Your task to perform on an android device: turn off notifications settings in the gmail app Image 0: 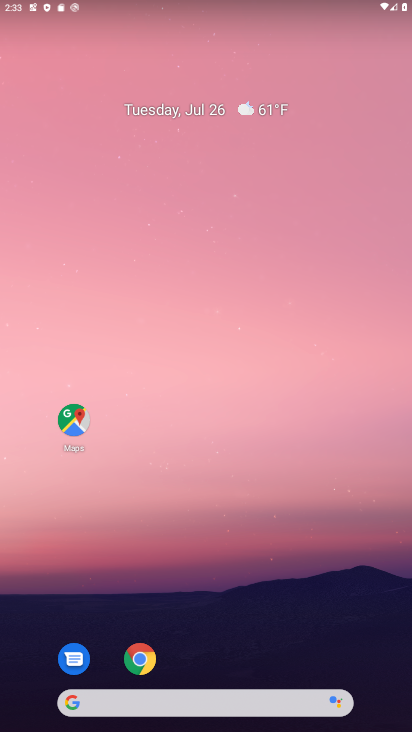
Step 0: drag from (182, 663) to (176, 237)
Your task to perform on an android device: turn off notifications settings in the gmail app Image 1: 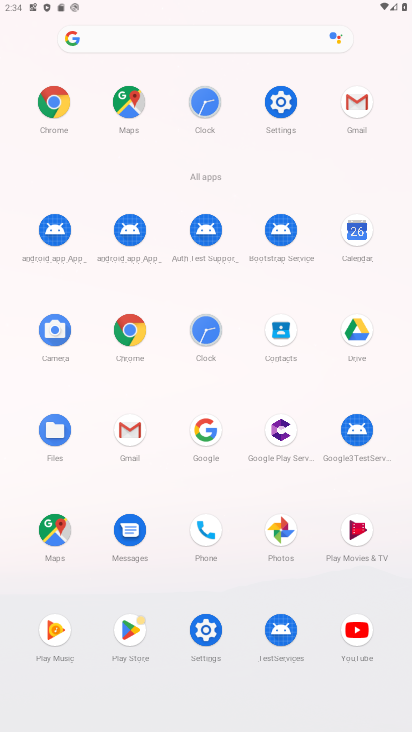
Step 1: click (349, 104)
Your task to perform on an android device: turn off notifications settings in the gmail app Image 2: 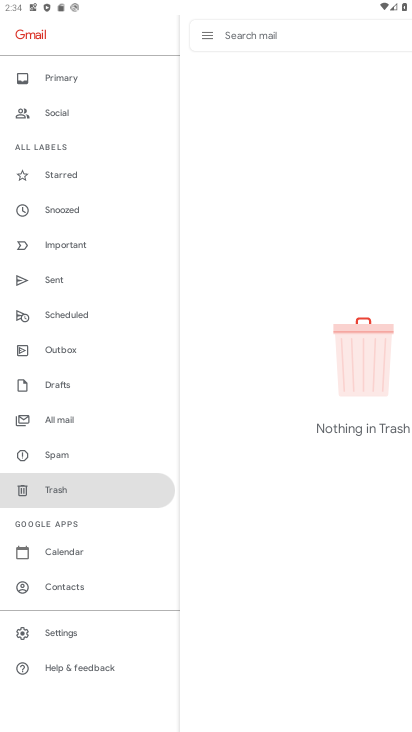
Step 2: click (65, 626)
Your task to perform on an android device: turn off notifications settings in the gmail app Image 3: 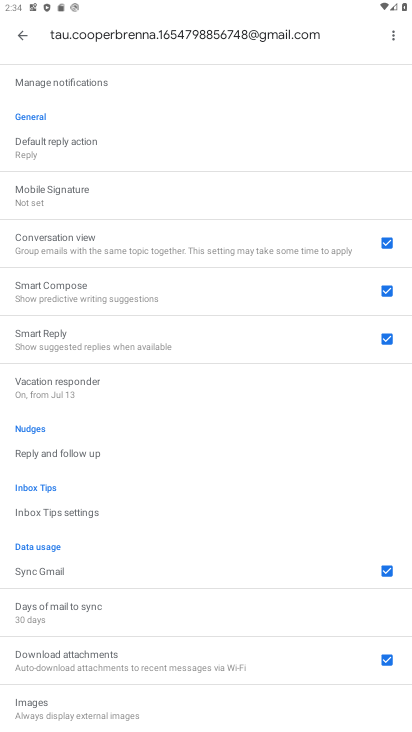
Step 3: drag from (204, 225) to (187, 600)
Your task to perform on an android device: turn off notifications settings in the gmail app Image 4: 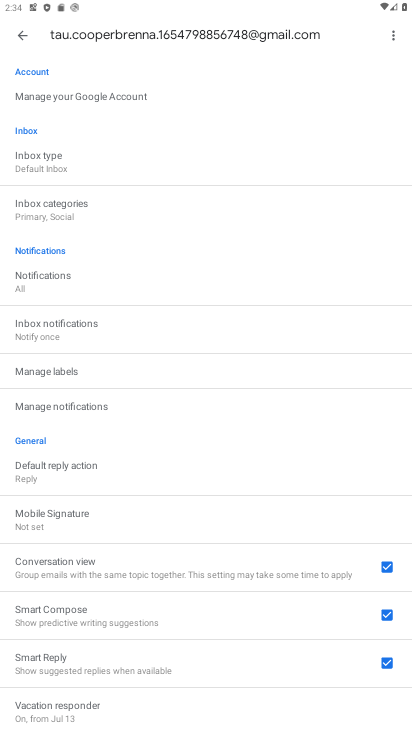
Step 4: click (48, 409)
Your task to perform on an android device: turn off notifications settings in the gmail app Image 5: 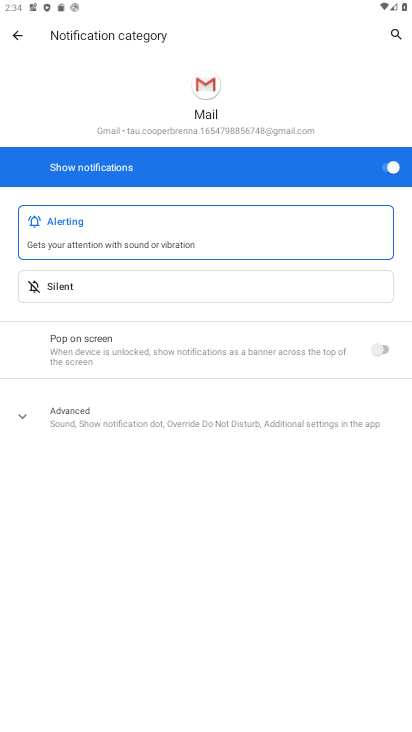
Step 5: click (381, 169)
Your task to perform on an android device: turn off notifications settings in the gmail app Image 6: 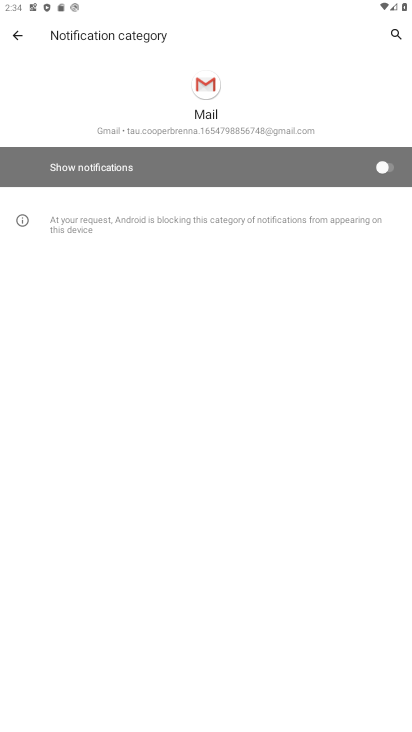
Step 6: task complete